Your task to perform on an android device: set an alarm Image 0: 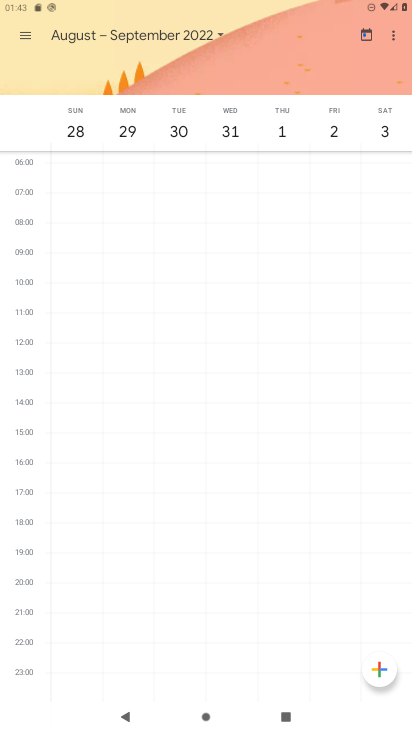
Step 0: press home button
Your task to perform on an android device: set an alarm Image 1: 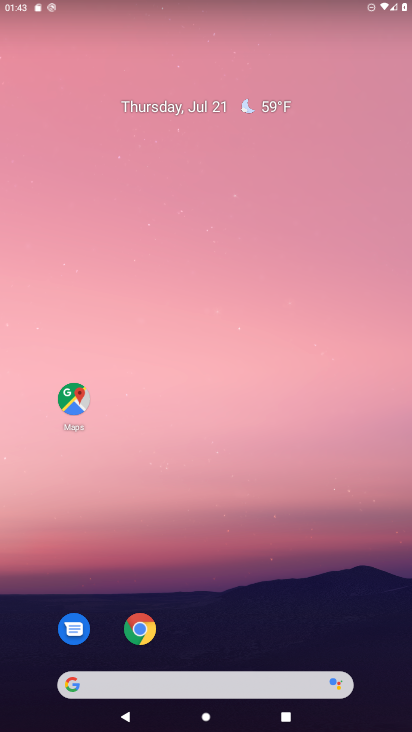
Step 1: drag from (384, 669) to (385, 181)
Your task to perform on an android device: set an alarm Image 2: 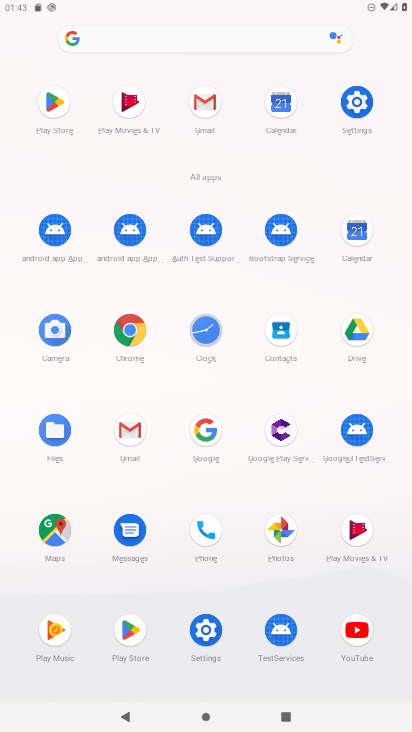
Step 2: click (206, 332)
Your task to perform on an android device: set an alarm Image 3: 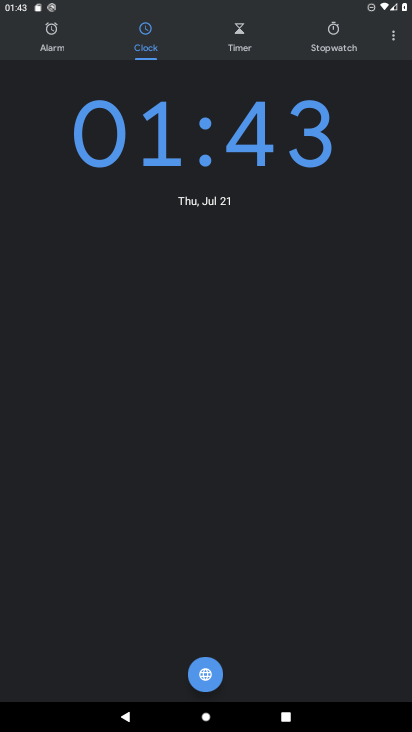
Step 3: click (58, 41)
Your task to perform on an android device: set an alarm Image 4: 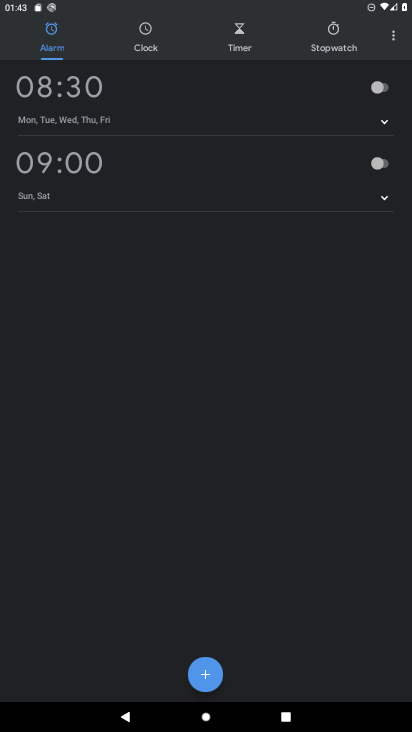
Step 4: click (67, 88)
Your task to perform on an android device: set an alarm Image 5: 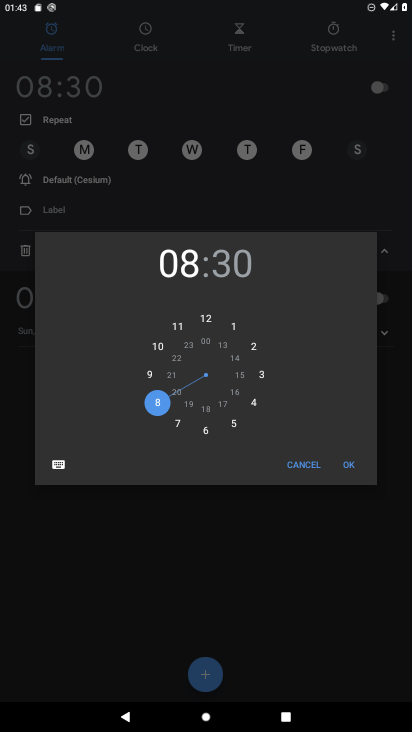
Step 5: click (203, 435)
Your task to perform on an android device: set an alarm Image 6: 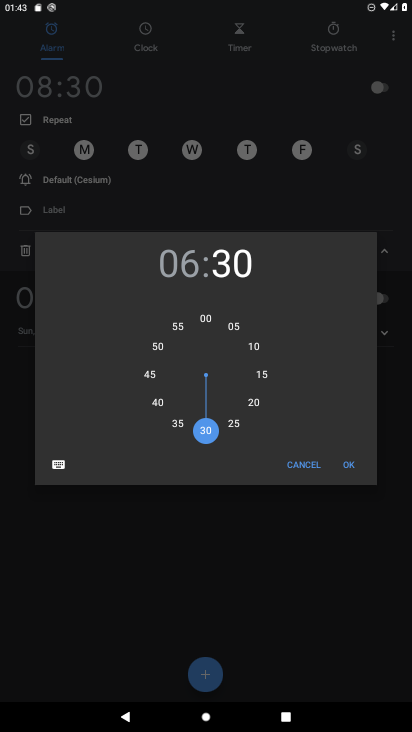
Step 6: click (257, 376)
Your task to perform on an android device: set an alarm Image 7: 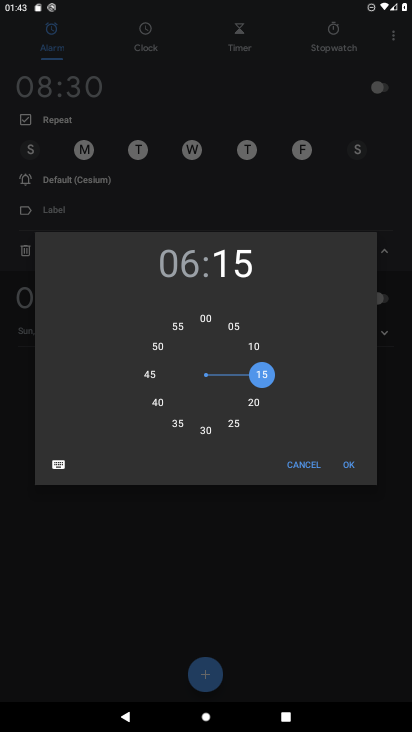
Step 7: click (350, 468)
Your task to perform on an android device: set an alarm Image 8: 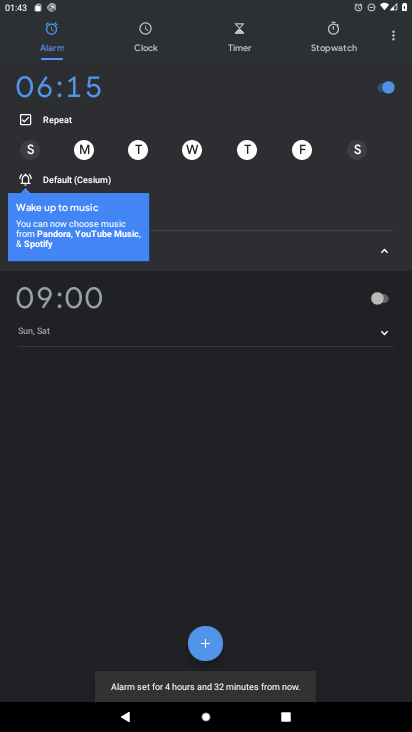
Step 8: click (353, 150)
Your task to perform on an android device: set an alarm Image 9: 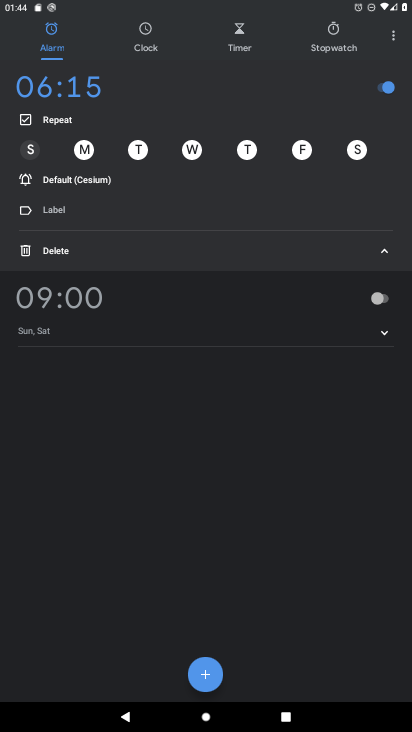
Step 9: click (384, 252)
Your task to perform on an android device: set an alarm Image 10: 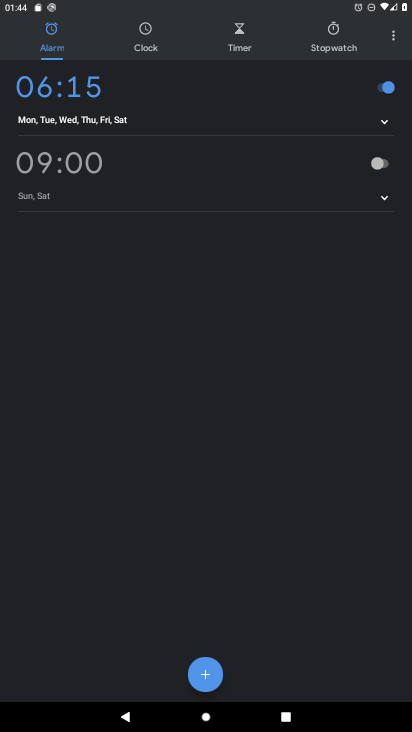
Step 10: task complete